Your task to perform on an android device: Open Youtube and go to the subscriptions tab Image 0: 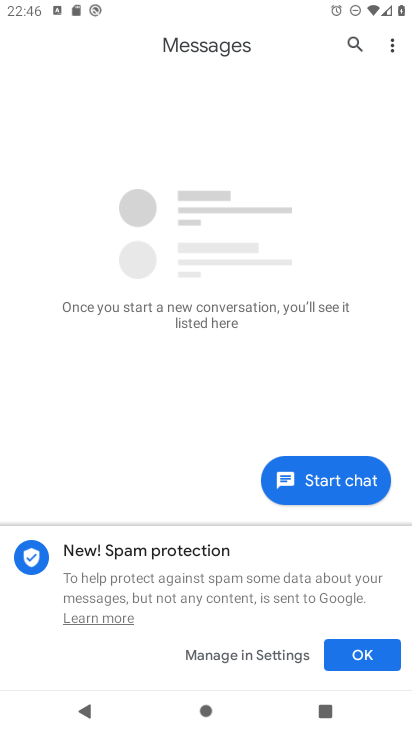
Step 0: press home button
Your task to perform on an android device: Open Youtube and go to the subscriptions tab Image 1: 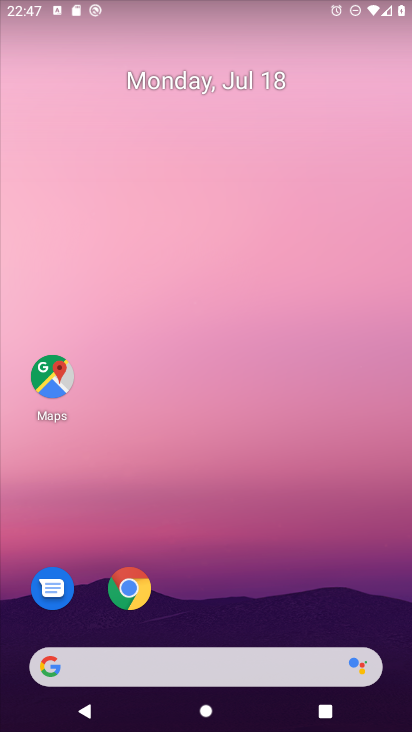
Step 1: drag from (368, 616) to (274, 82)
Your task to perform on an android device: Open Youtube and go to the subscriptions tab Image 2: 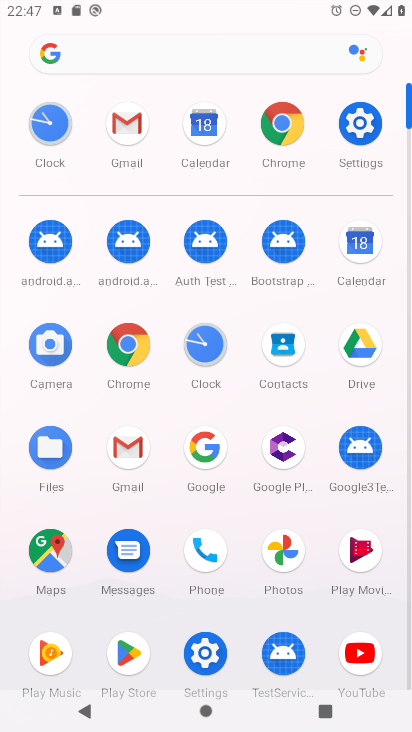
Step 2: click (364, 657)
Your task to perform on an android device: Open Youtube and go to the subscriptions tab Image 3: 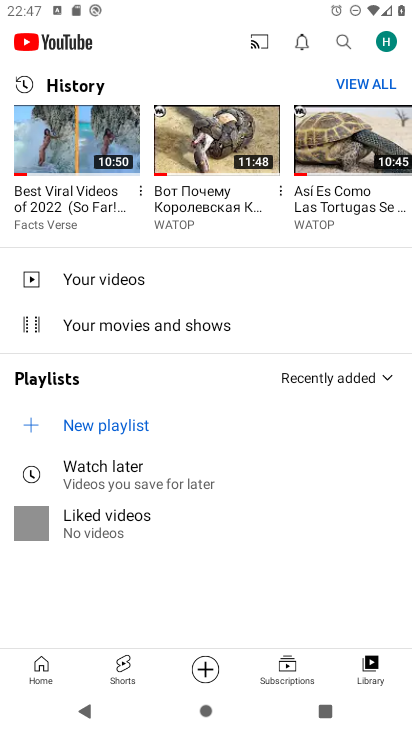
Step 3: click (291, 663)
Your task to perform on an android device: Open Youtube and go to the subscriptions tab Image 4: 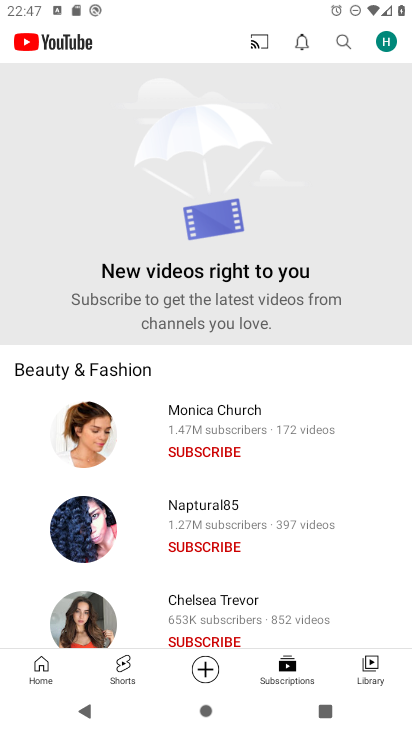
Step 4: task complete